Your task to perform on an android device: Open Android settings Image 0: 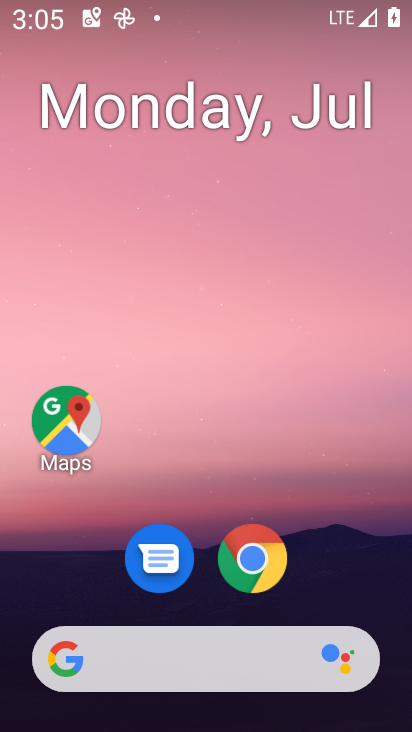
Step 0: drag from (360, 573) to (333, 70)
Your task to perform on an android device: Open Android settings Image 1: 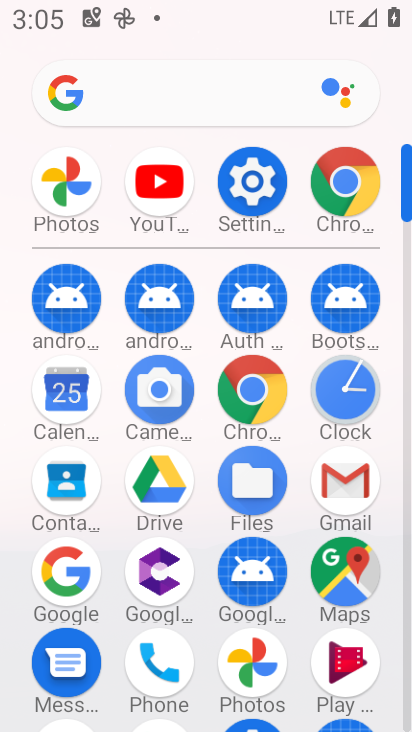
Step 1: click (253, 202)
Your task to perform on an android device: Open Android settings Image 2: 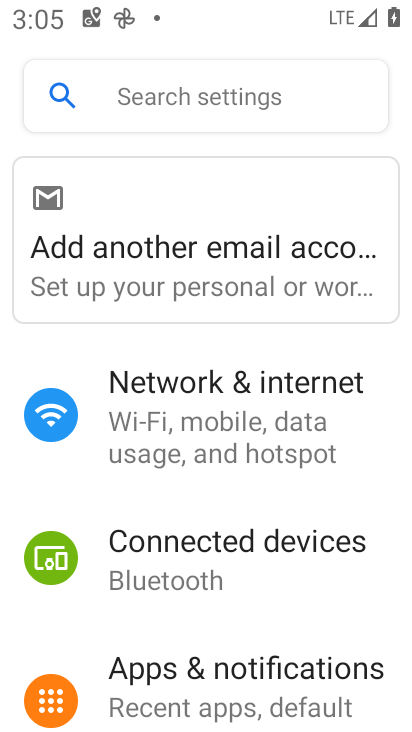
Step 2: drag from (379, 494) to (365, 315)
Your task to perform on an android device: Open Android settings Image 3: 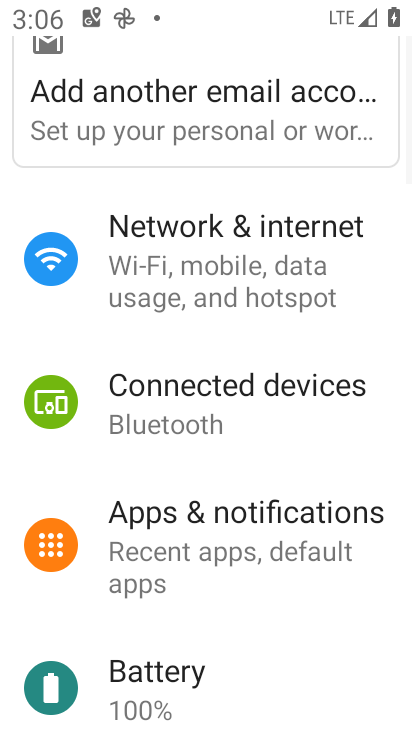
Step 3: drag from (342, 628) to (343, 397)
Your task to perform on an android device: Open Android settings Image 4: 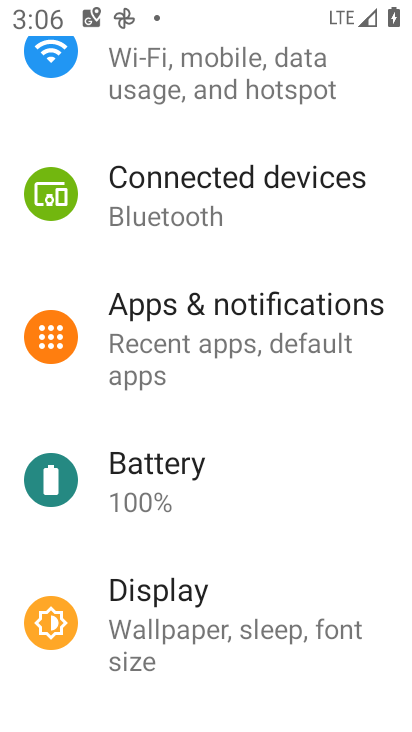
Step 4: drag from (331, 548) to (325, 375)
Your task to perform on an android device: Open Android settings Image 5: 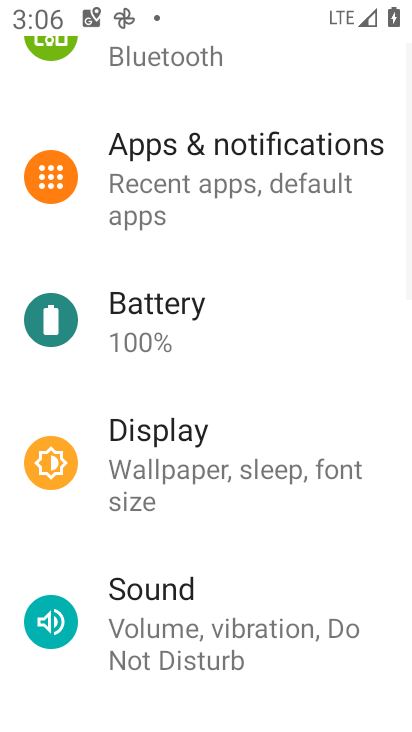
Step 5: drag from (318, 551) to (319, 362)
Your task to perform on an android device: Open Android settings Image 6: 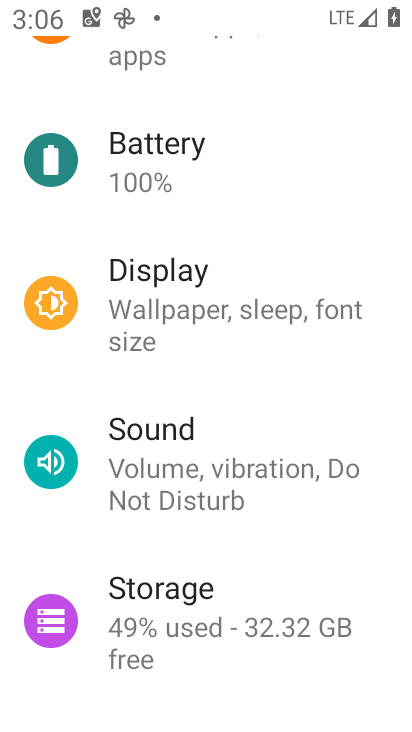
Step 6: drag from (349, 576) to (349, 409)
Your task to perform on an android device: Open Android settings Image 7: 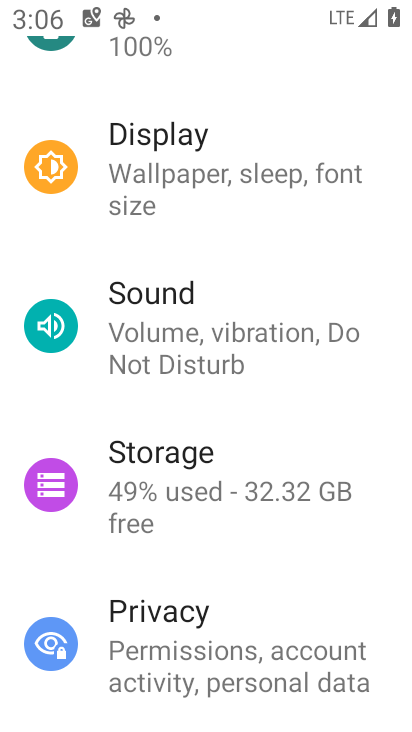
Step 7: drag from (334, 561) to (335, 399)
Your task to perform on an android device: Open Android settings Image 8: 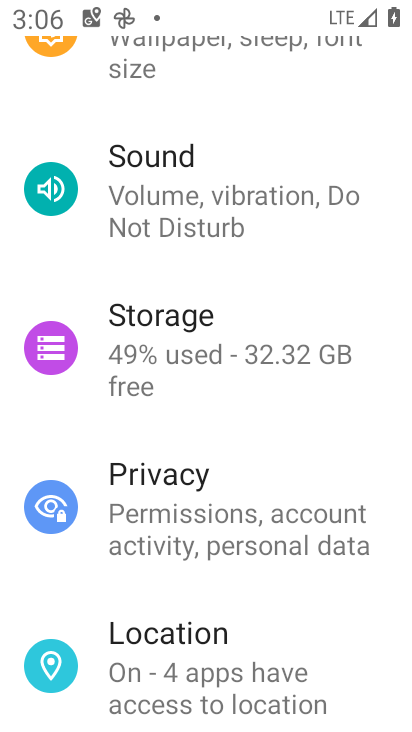
Step 8: drag from (322, 600) to (319, 439)
Your task to perform on an android device: Open Android settings Image 9: 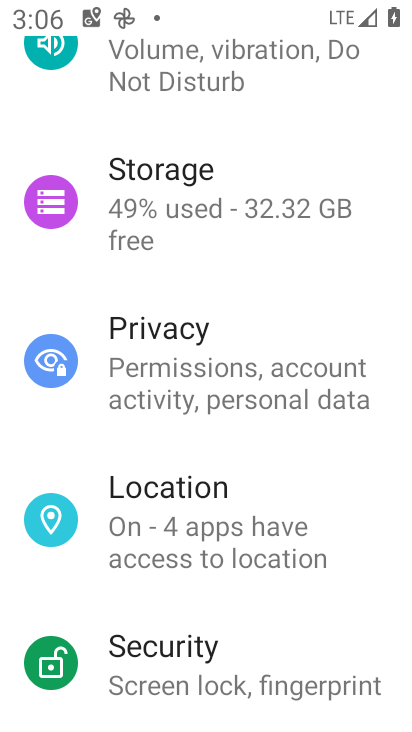
Step 9: drag from (317, 633) to (317, 480)
Your task to perform on an android device: Open Android settings Image 10: 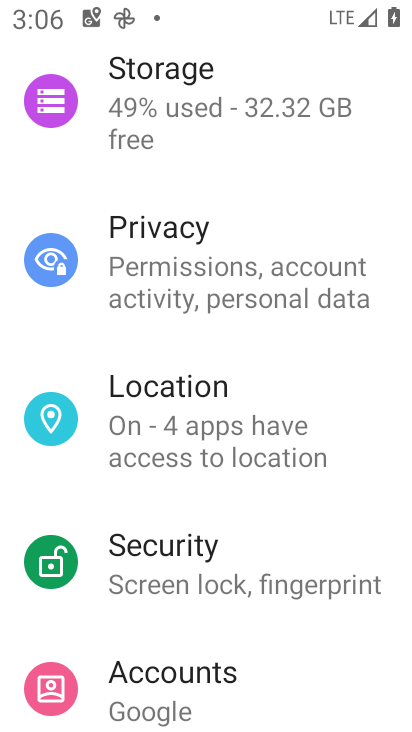
Step 10: drag from (355, 525) to (342, 372)
Your task to perform on an android device: Open Android settings Image 11: 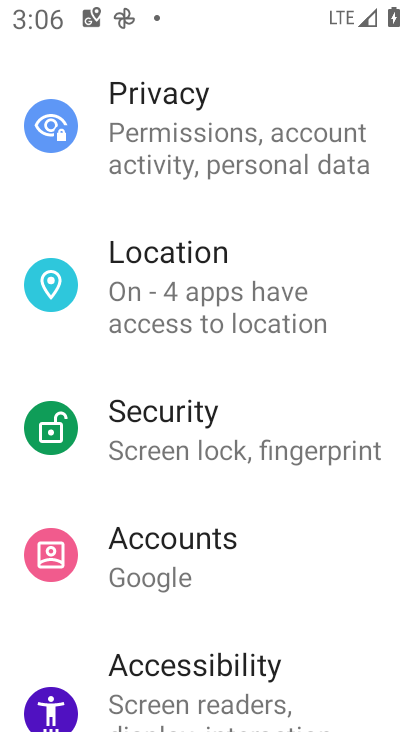
Step 11: drag from (323, 556) to (320, 360)
Your task to perform on an android device: Open Android settings Image 12: 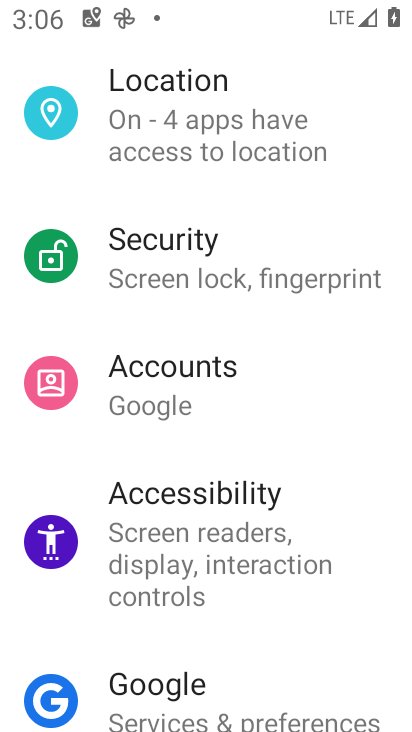
Step 12: drag from (316, 636) to (325, 432)
Your task to perform on an android device: Open Android settings Image 13: 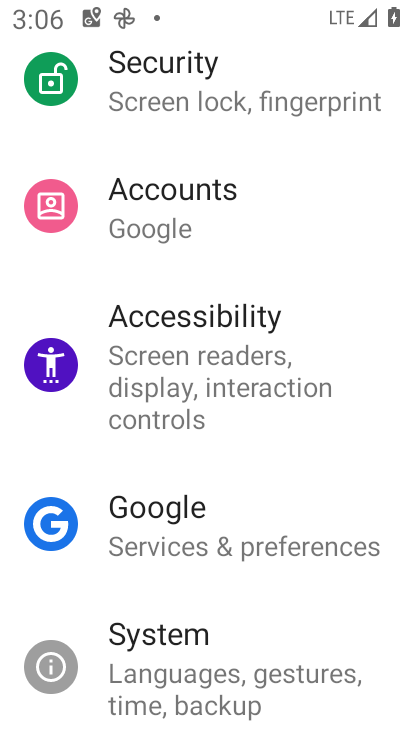
Step 13: drag from (325, 622) to (315, 444)
Your task to perform on an android device: Open Android settings Image 14: 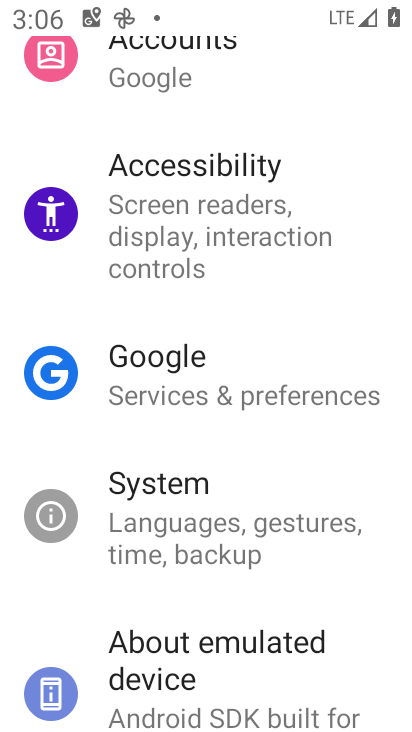
Step 14: click (304, 498)
Your task to perform on an android device: Open Android settings Image 15: 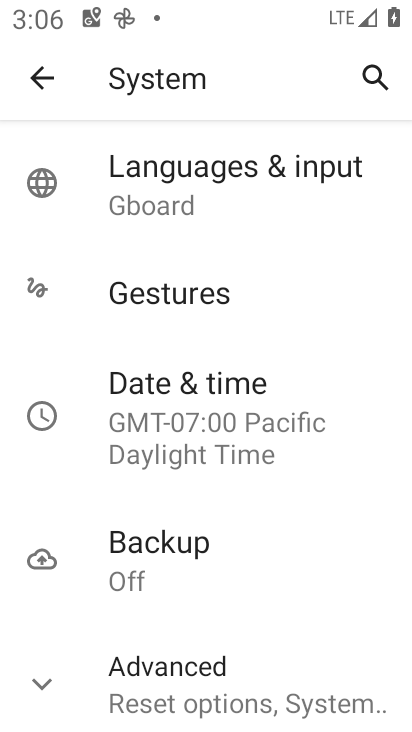
Step 15: click (248, 674)
Your task to perform on an android device: Open Android settings Image 16: 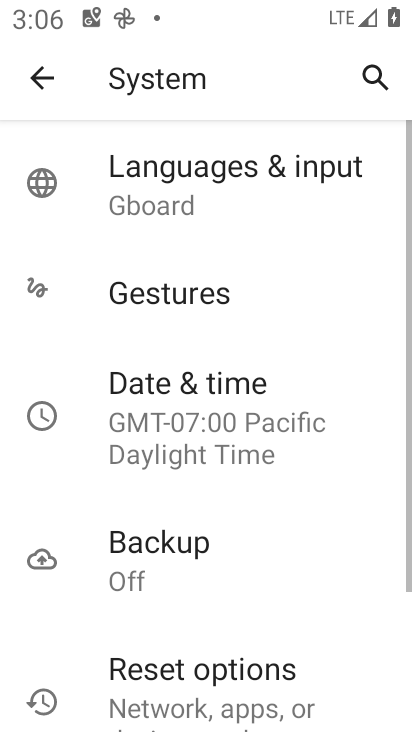
Step 16: task complete